Your task to perform on an android device: turn on improve location accuracy Image 0: 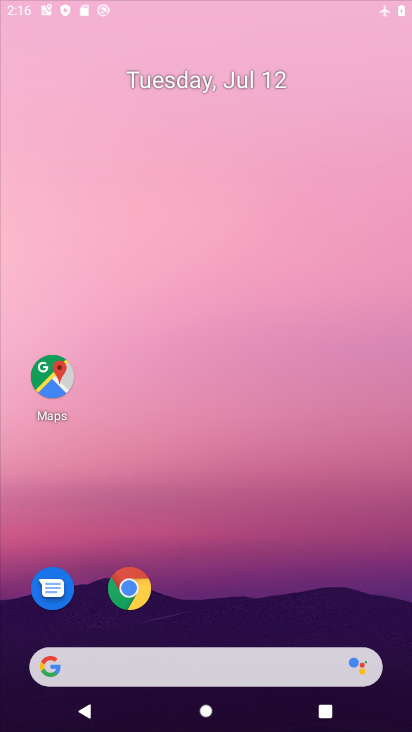
Step 0: click (197, 98)
Your task to perform on an android device: turn on improve location accuracy Image 1: 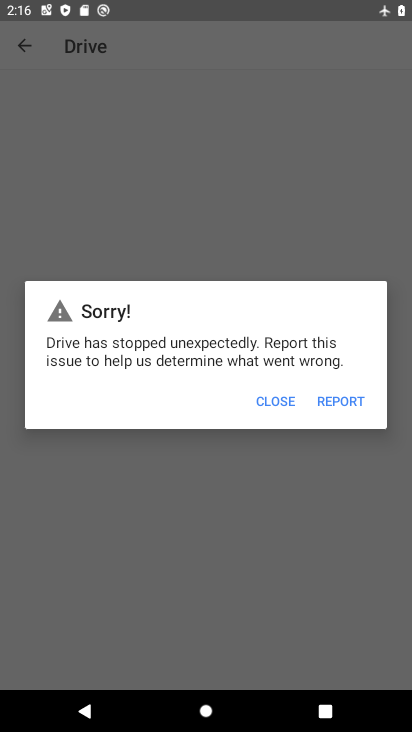
Step 1: press home button
Your task to perform on an android device: turn on improve location accuracy Image 2: 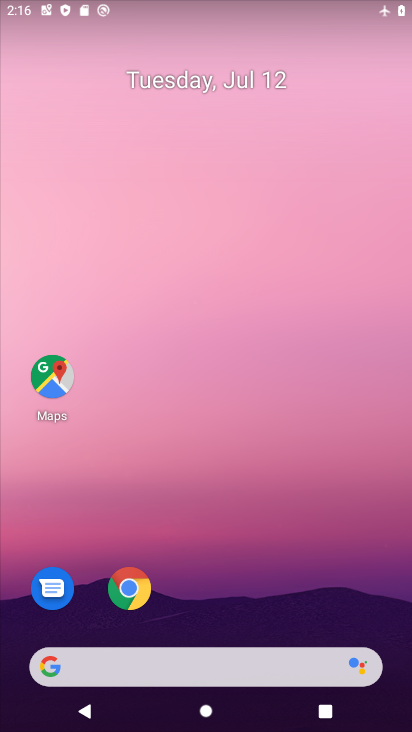
Step 2: drag from (219, 664) to (220, 86)
Your task to perform on an android device: turn on improve location accuracy Image 3: 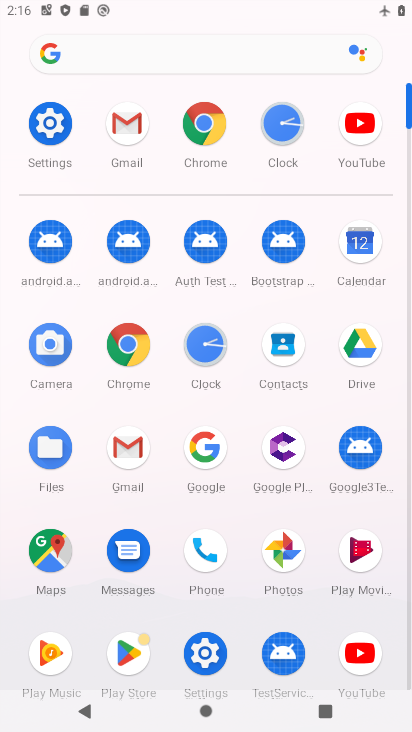
Step 3: click (50, 132)
Your task to perform on an android device: turn on improve location accuracy Image 4: 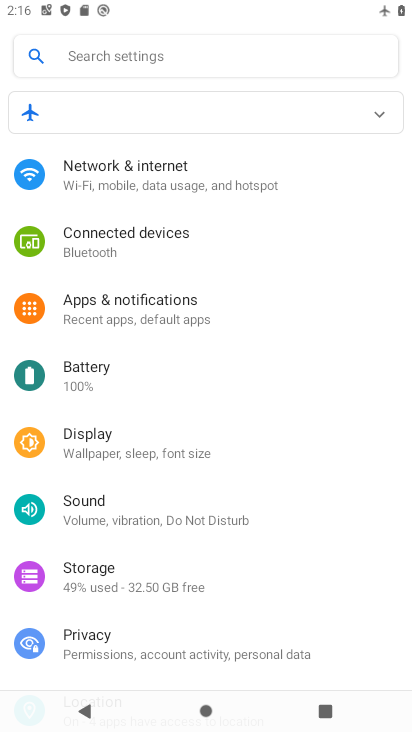
Step 4: drag from (166, 629) to (168, 101)
Your task to perform on an android device: turn on improve location accuracy Image 5: 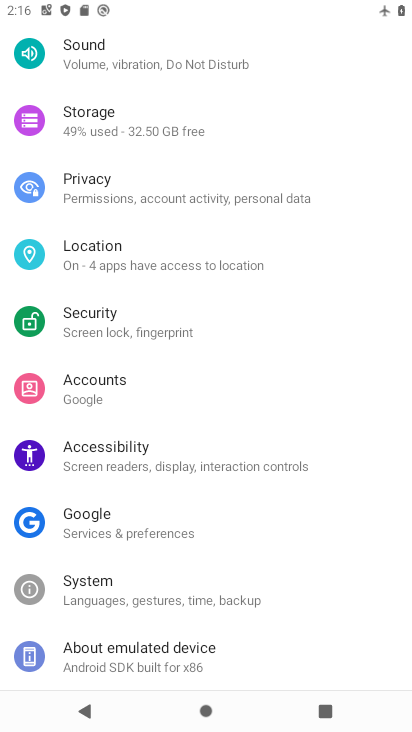
Step 5: click (107, 246)
Your task to perform on an android device: turn on improve location accuracy Image 6: 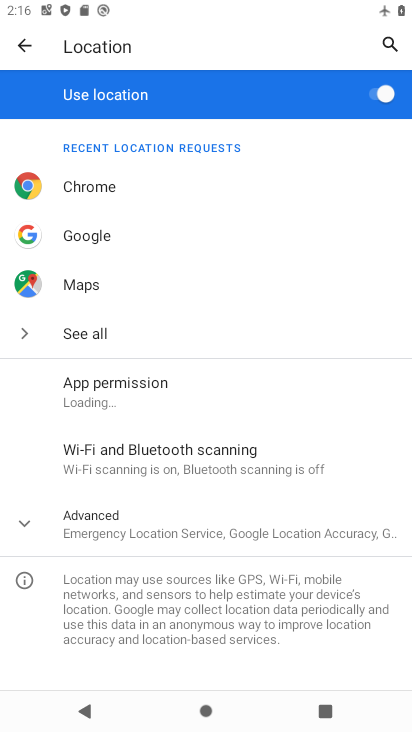
Step 6: click (141, 520)
Your task to perform on an android device: turn on improve location accuracy Image 7: 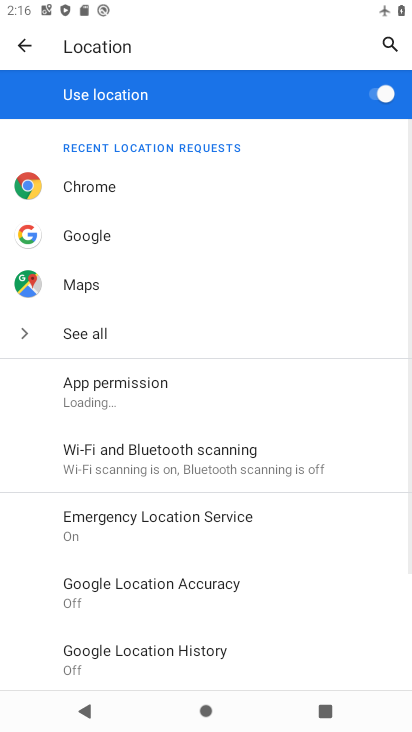
Step 7: click (177, 592)
Your task to perform on an android device: turn on improve location accuracy Image 8: 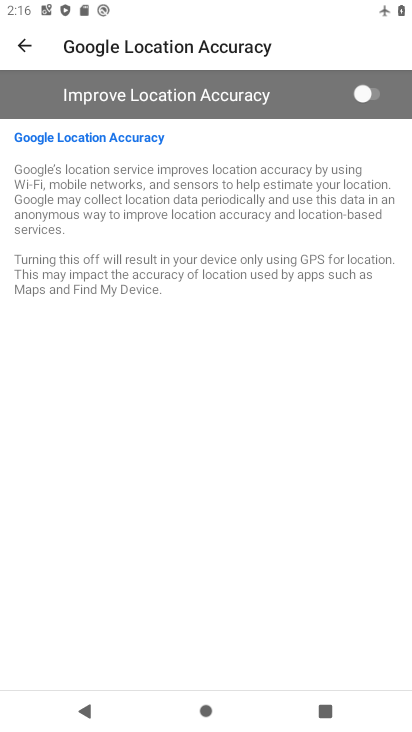
Step 8: click (357, 97)
Your task to perform on an android device: turn on improve location accuracy Image 9: 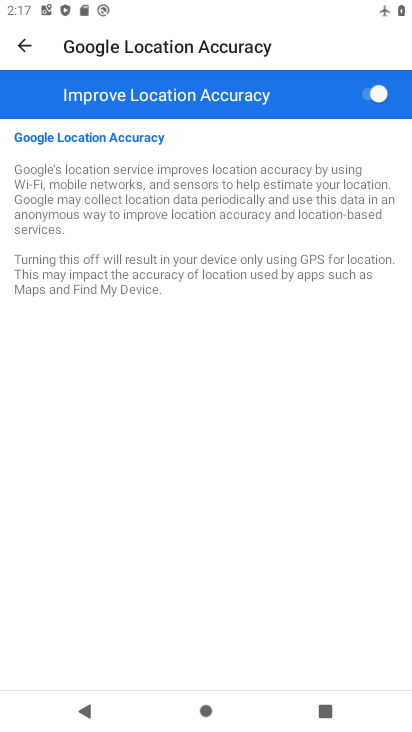
Step 9: task complete